Your task to perform on an android device: Add logitech g910 to the cart on walmart.com, then select checkout. Image 0: 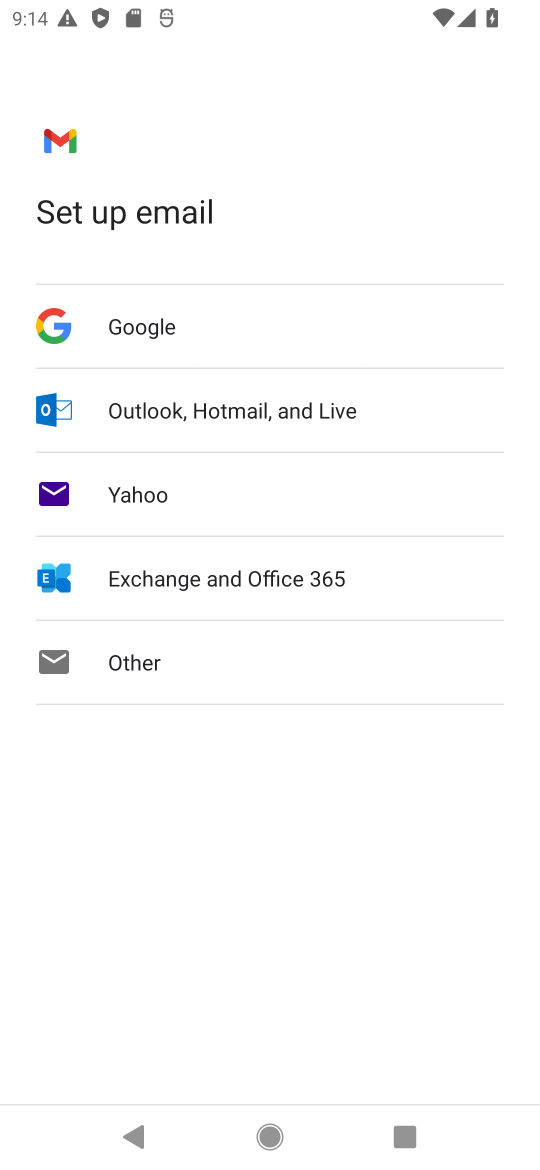
Step 0: press home button
Your task to perform on an android device: Add logitech g910 to the cart on walmart.com, then select checkout. Image 1: 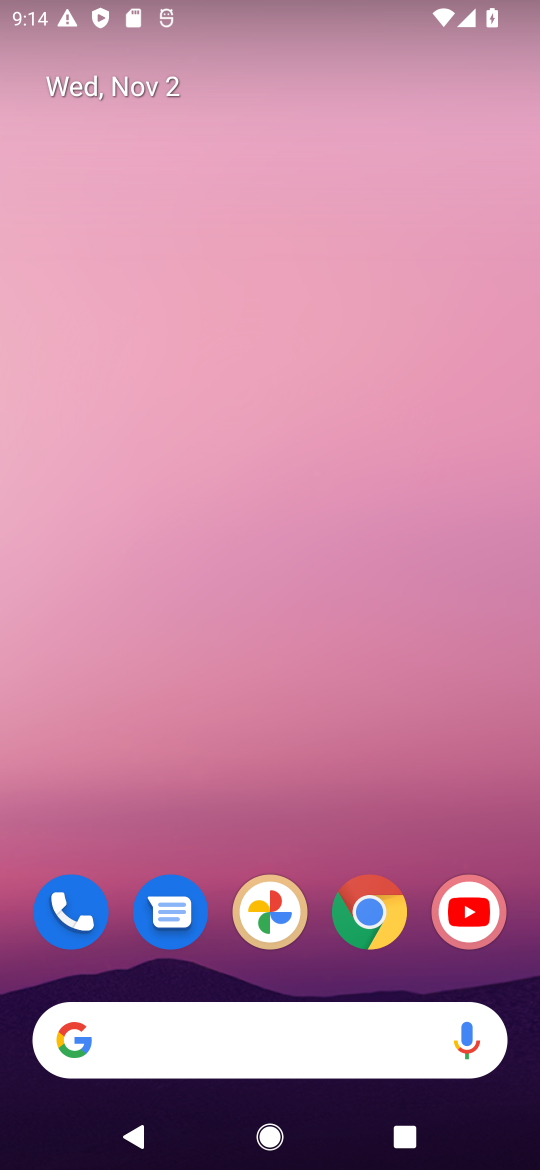
Step 1: drag from (323, 1095) to (309, 95)
Your task to perform on an android device: Add logitech g910 to the cart on walmart.com, then select checkout. Image 2: 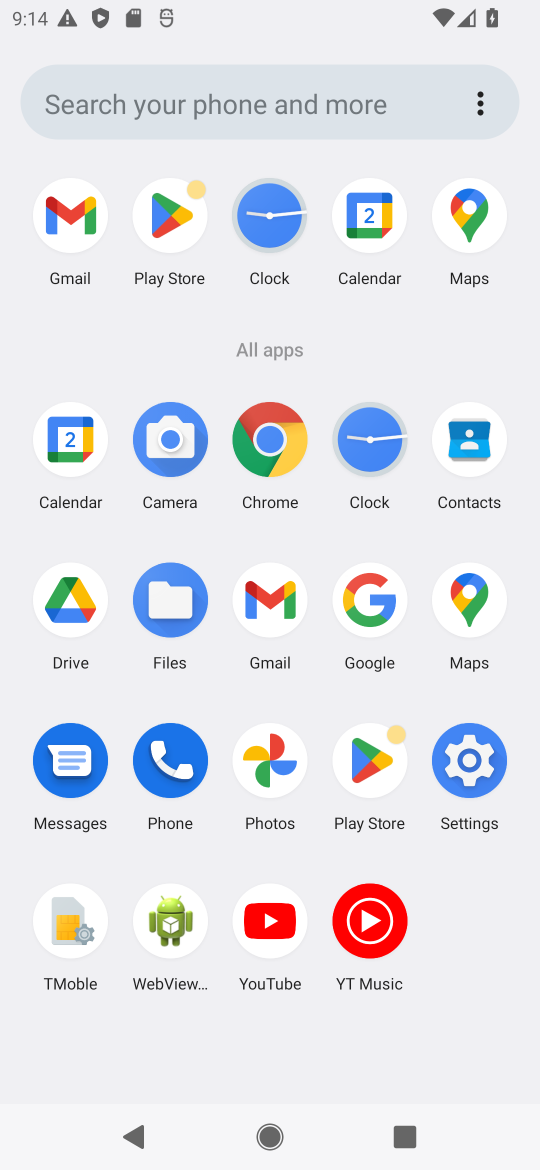
Step 2: click (272, 436)
Your task to perform on an android device: Add logitech g910 to the cart on walmart.com, then select checkout. Image 3: 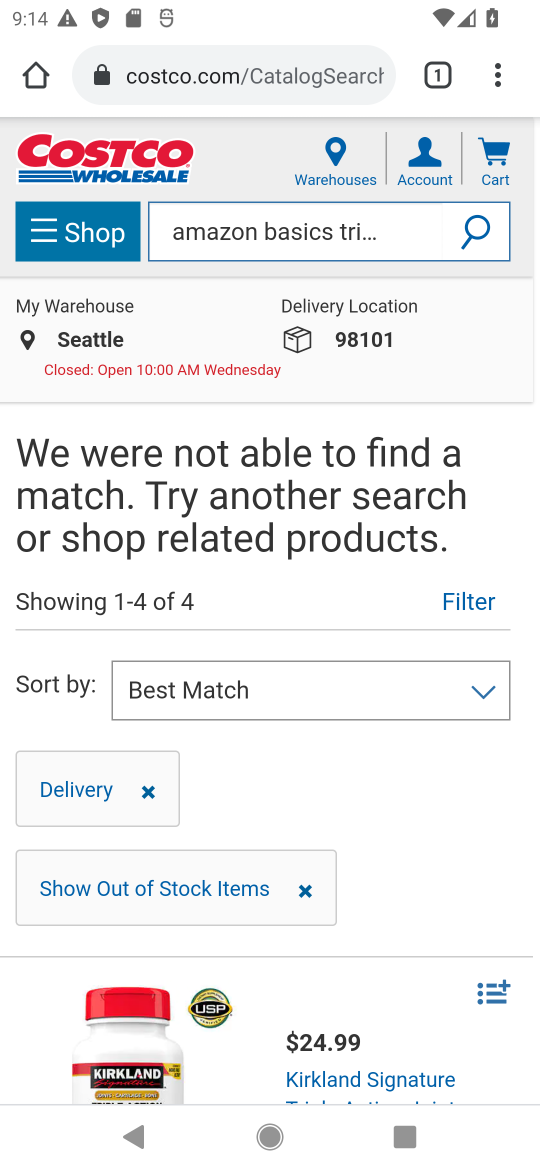
Step 3: click (244, 70)
Your task to perform on an android device: Add logitech g910 to the cart on walmart.com, then select checkout. Image 4: 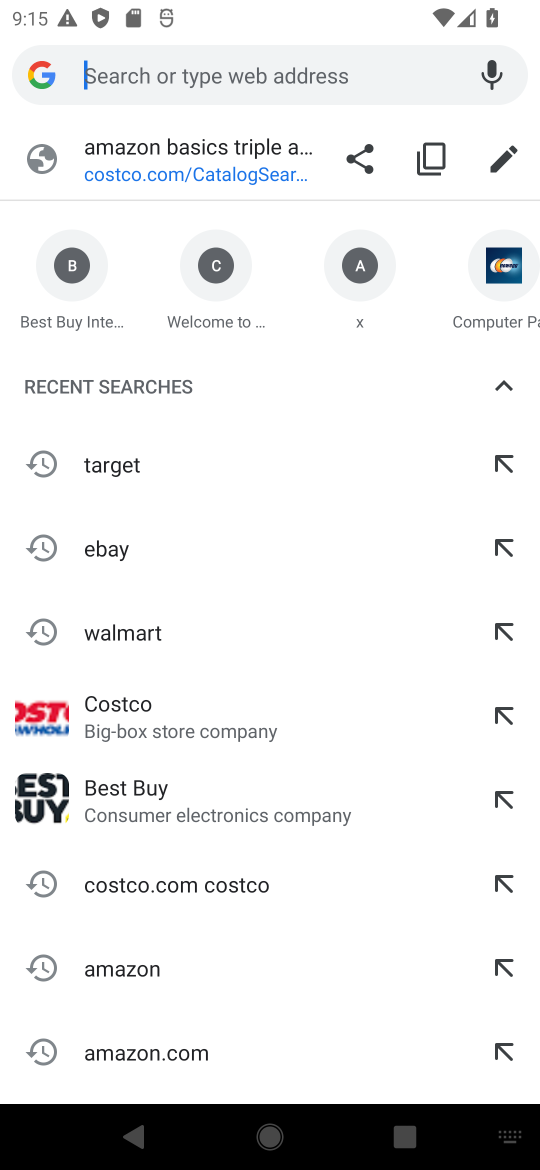
Step 4: type " walmart.com"
Your task to perform on an android device: Add logitech g910 to the cart on walmart.com, then select checkout. Image 5: 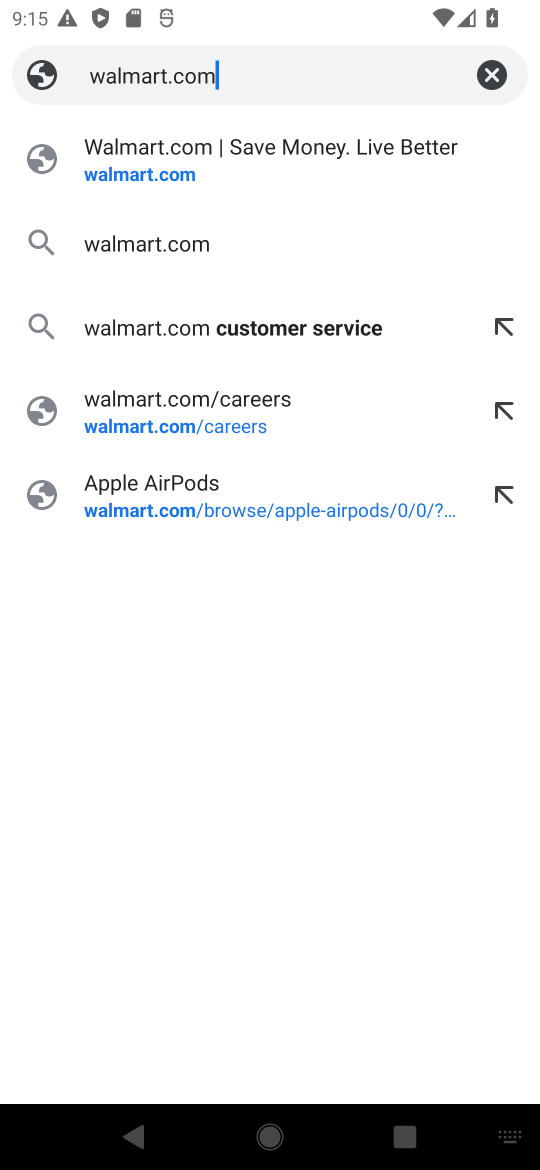
Step 5: click (100, 166)
Your task to perform on an android device: Add logitech g910 to the cart on walmart.com, then select checkout. Image 6: 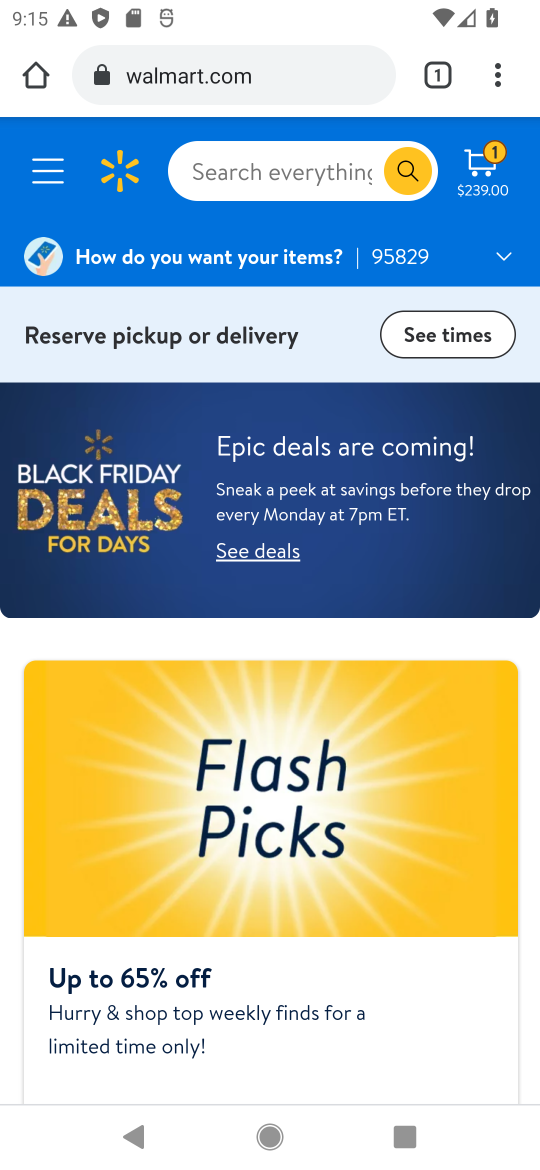
Step 6: click (237, 171)
Your task to perform on an android device: Add logitech g910 to the cart on walmart.com, then select checkout. Image 7: 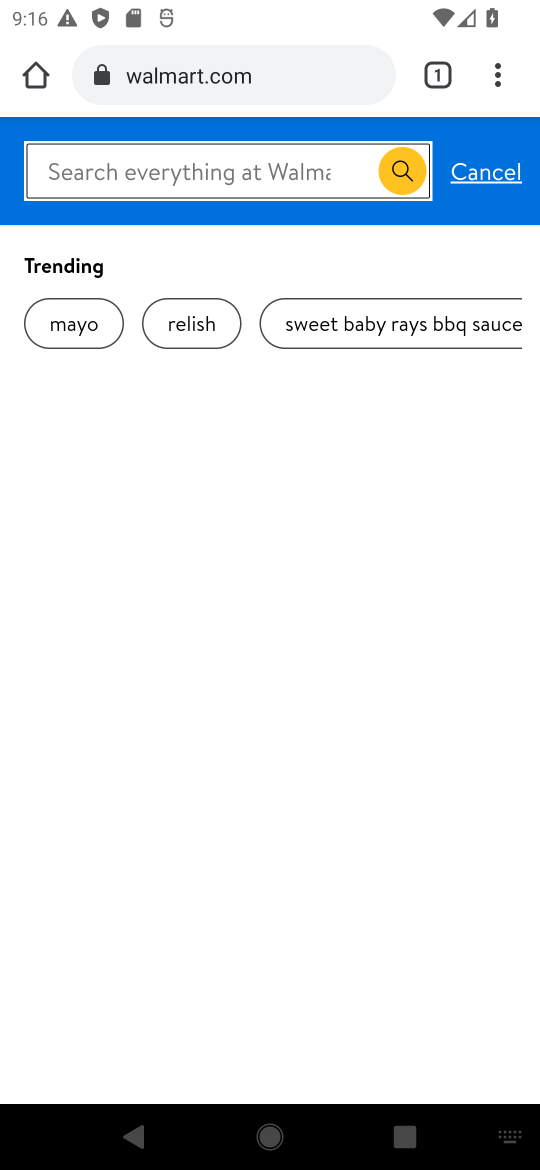
Step 7: type " logitech g910"
Your task to perform on an android device: Add logitech g910 to the cart on walmart.com, then select checkout. Image 8: 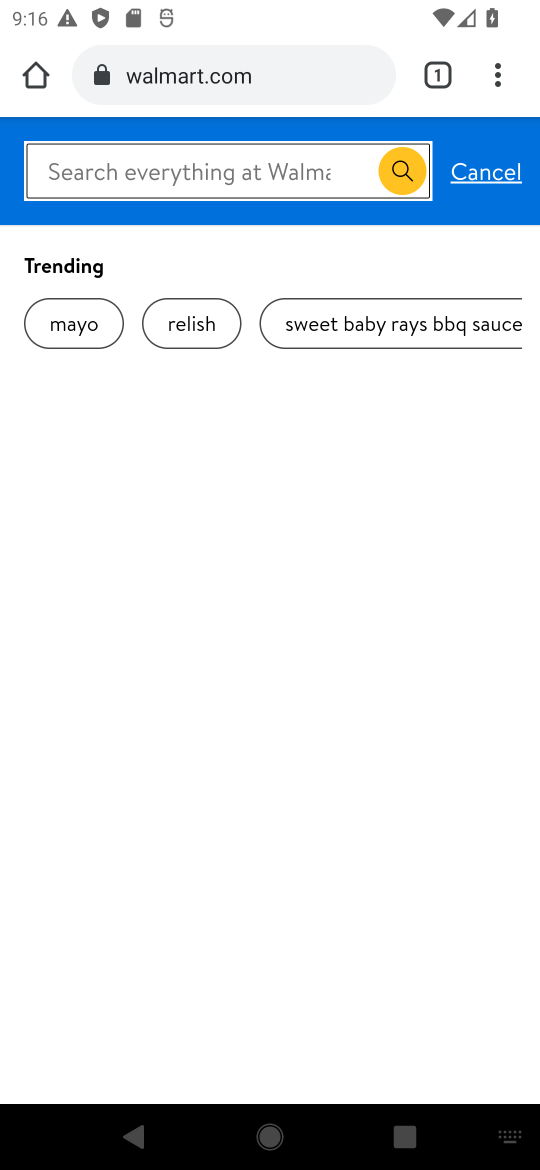
Step 8: type ""
Your task to perform on an android device: Add logitech g910 to the cart on walmart.com, then select checkout. Image 9: 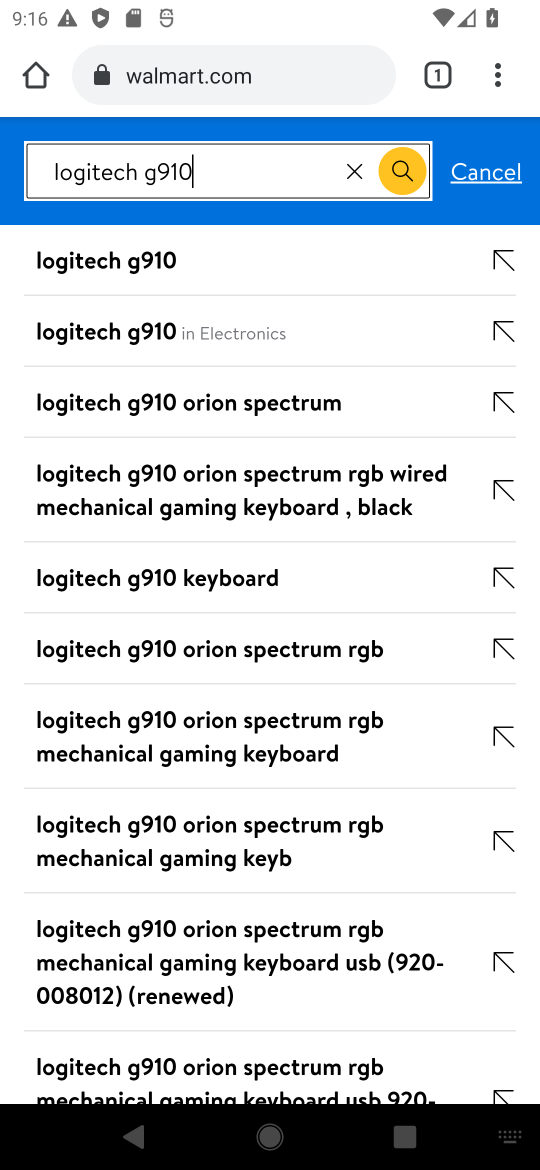
Step 9: click (140, 259)
Your task to perform on an android device: Add logitech g910 to the cart on walmart.com, then select checkout. Image 10: 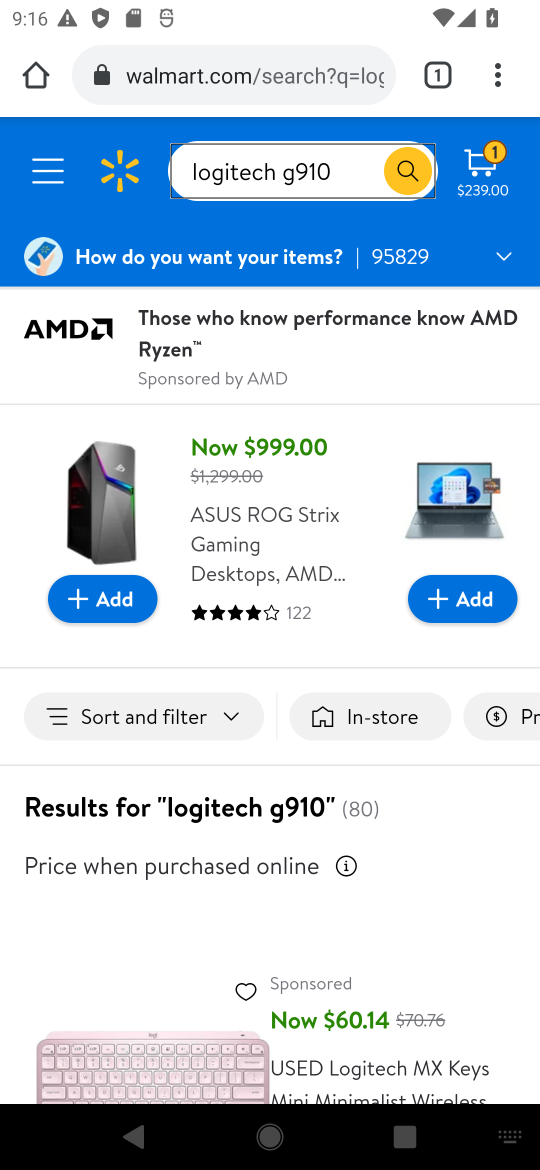
Step 10: click (174, 495)
Your task to perform on an android device: Add logitech g910 to the cart on walmart.com, then select checkout. Image 11: 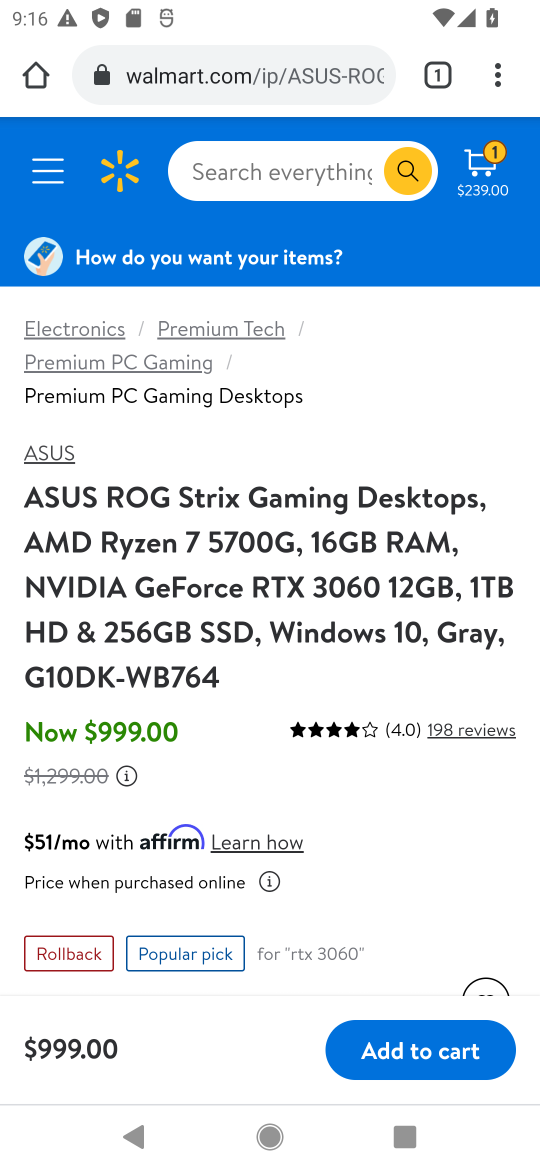
Step 11: click (444, 1052)
Your task to perform on an android device: Add logitech g910 to the cart on walmart.com, then select checkout. Image 12: 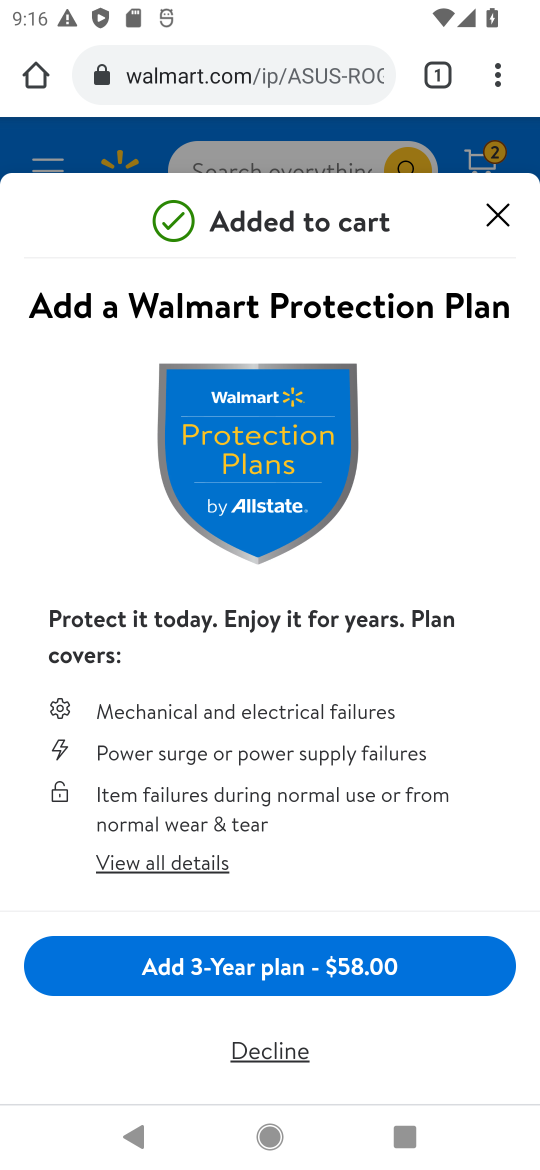
Step 12: task complete